Your task to perform on an android device: Open Amazon Image 0: 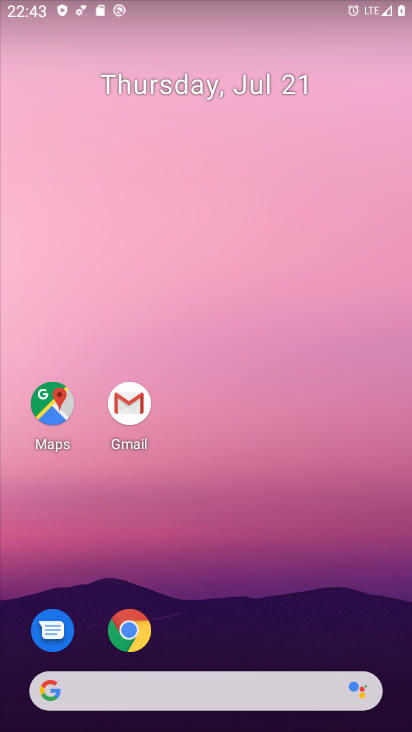
Step 0: drag from (207, 625) to (164, 263)
Your task to perform on an android device: Open Amazon Image 1: 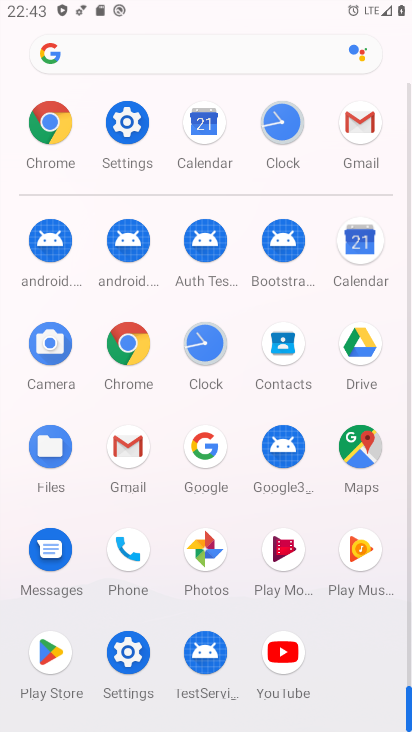
Step 1: click (60, 120)
Your task to perform on an android device: Open Amazon Image 2: 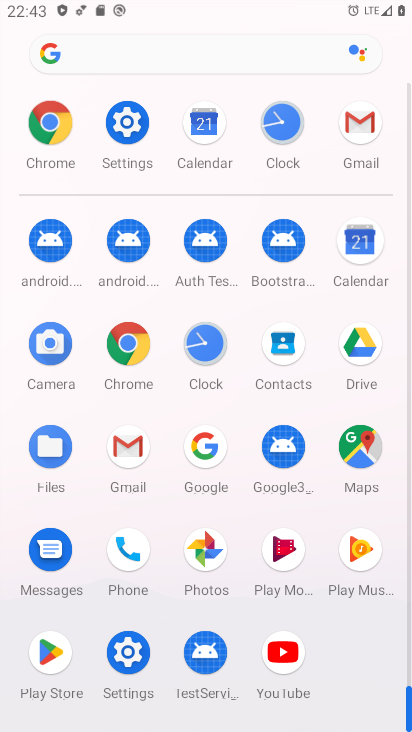
Step 2: click (60, 120)
Your task to perform on an android device: Open Amazon Image 3: 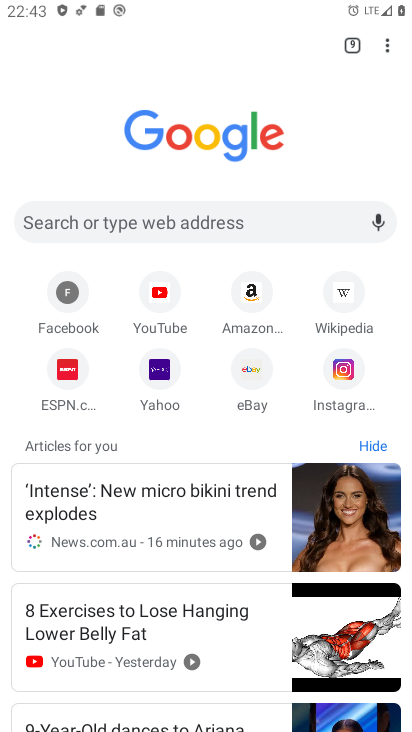
Step 3: click (260, 296)
Your task to perform on an android device: Open Amazon Image 4: 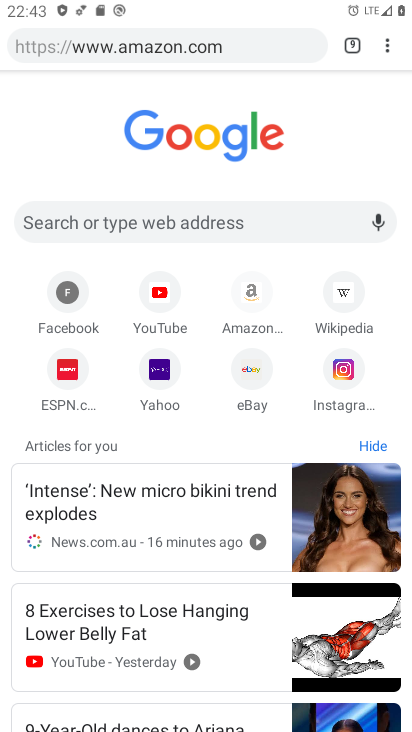
Step 4: click (256, 297)
Your task to perform on an android device: Open Amazon Image 5: 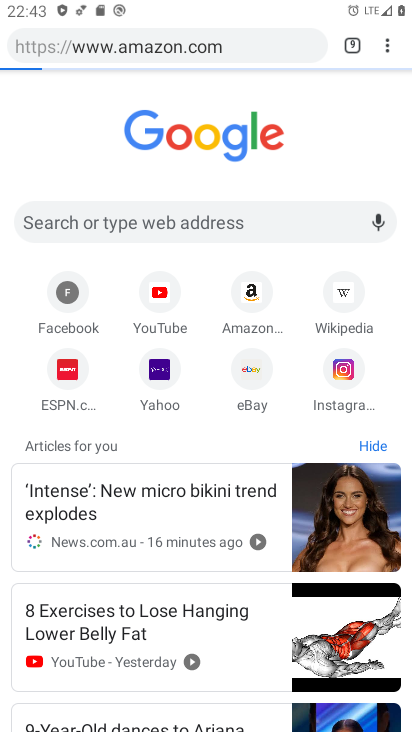
Step 5: click (256, 298)
Your task to perform on an android device: Open Amazon Image 6: 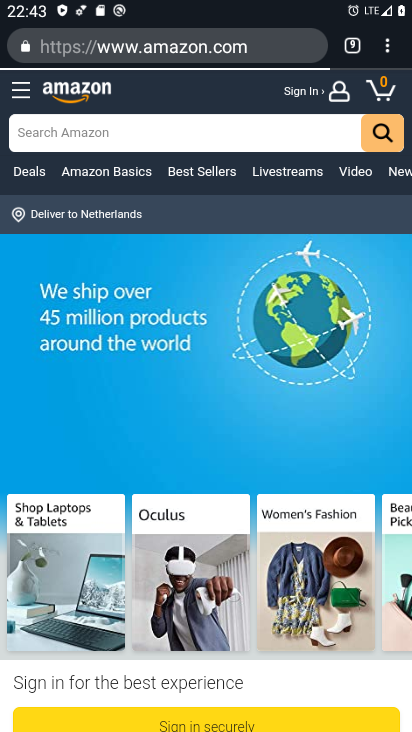
Step 6: task complete